Your task to perform on an android device: check storage Image 0: 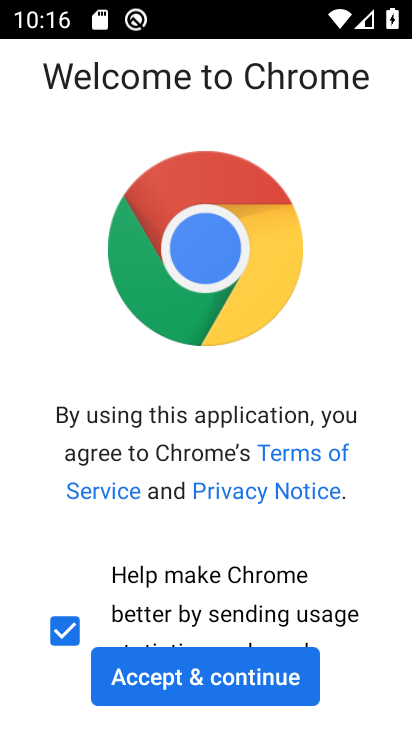
Step 0: press home button
Your task to perform on an android device: check storage Image 1: 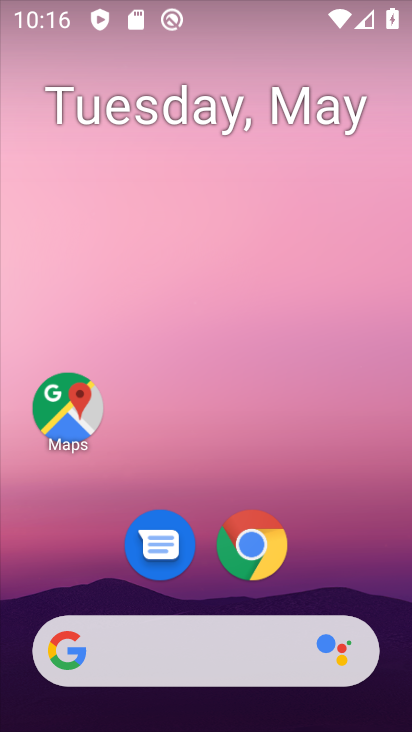
Step 1: drag from (224, 717) to (228, 269)
Your task to perform on an android device: check storage Image 2: 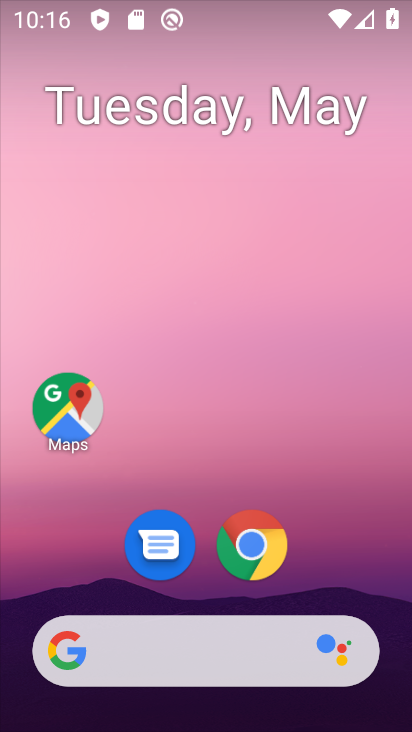
Step 2: drag from (224, 616) to (262, 201)
Your task to perform on an android device: check storage Image 3: 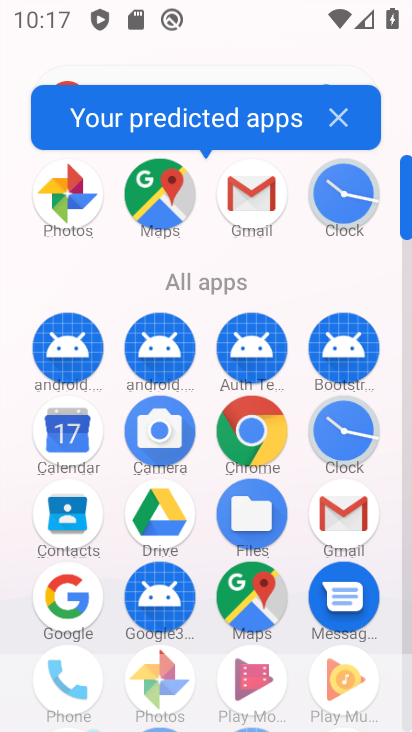
Step 3: drag from (255, 485) to (276, 239)
Your task to perform on an android device: check storage Image 4: 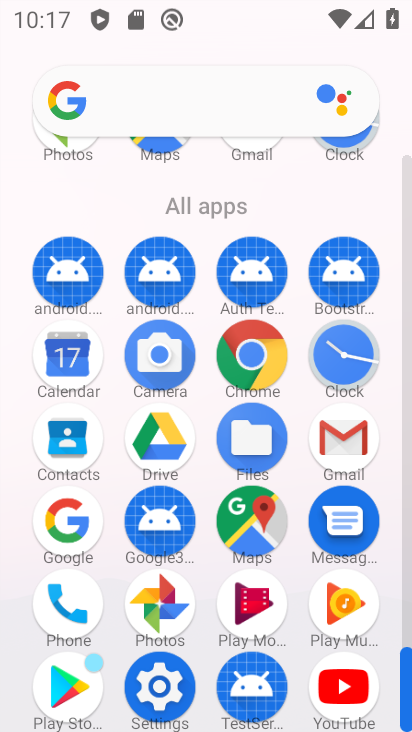
Step 4: click (168, 679)
Your task to perform on an android device: check storage Image 5: 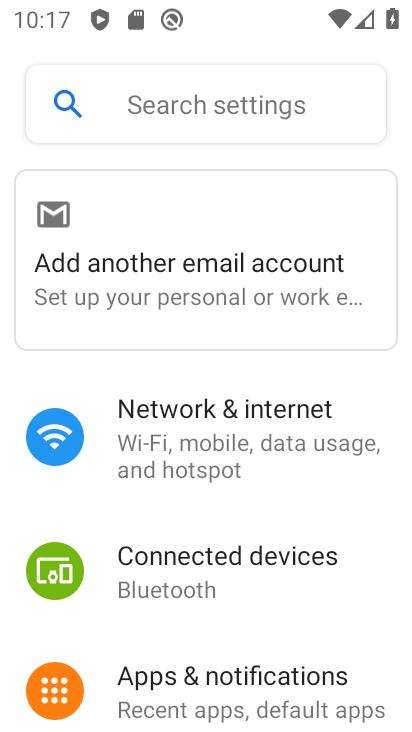
Step 5: drag from (266, 568) to (268, 394)
Your task to perform on an android device: check storage Image 6: 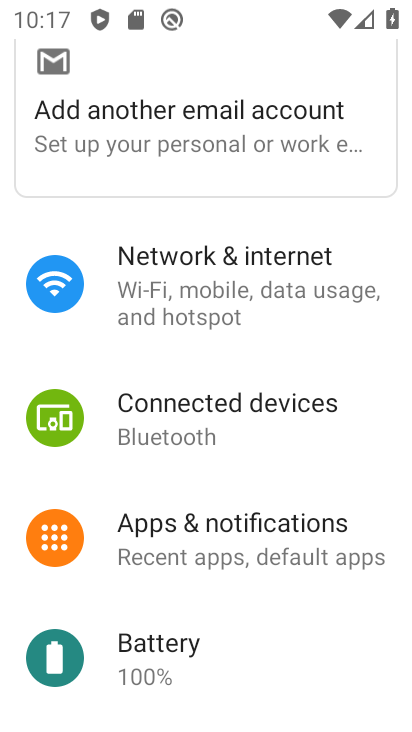
Step 6: drag from (268, 583) to (267, 100)
Your task to perform on an android device: check storage Image 7: 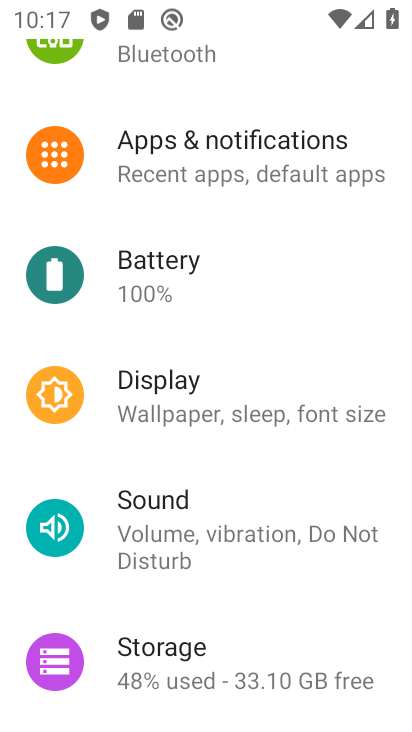
Step 7: click (227, 669)
Your task to perform on an android device: check storage Image 8: 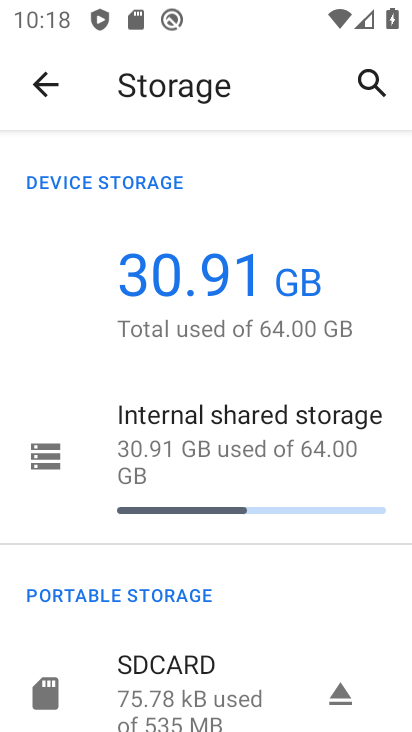
Step 8: click (255, 471)
Your task to perform on an android device: check storage Image 9: 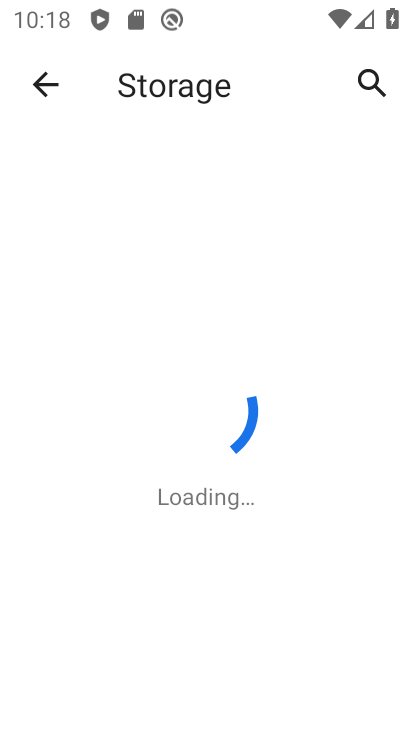
Step 9: task complete